Your task to perform on an android device: Open the calendar and show me this week's events? Image 0: 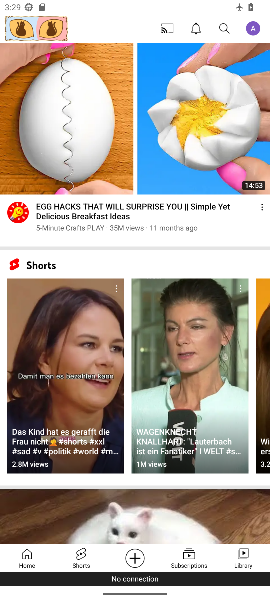
Step 0: press home button
Your task to perform on an android device: Open the calendar and show me this week's events? Image 1: 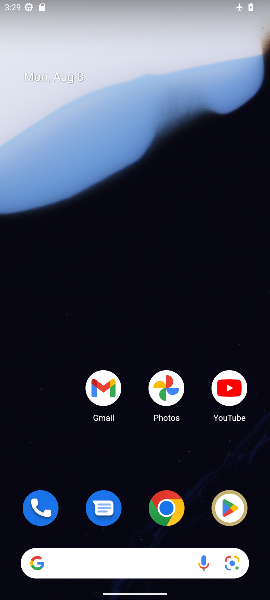
Step 1: drag from (140, 472) to (95, 19)
Your task to perform on an android device: Open the calendar and show me this week's events? Image 2: 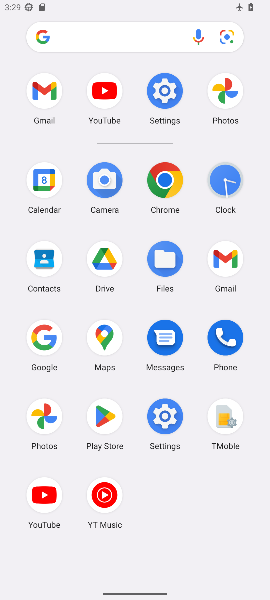
Step 2: click (47, 181)
Your task to perform on an android device: Open the calendar and show me this week's events? Image 3: 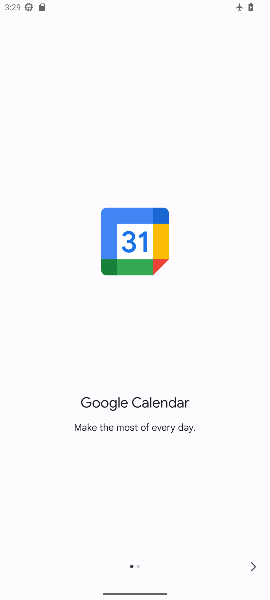
Step 3: click (251, 567)
Your task to perform on an android device: Open the calendar and show me this week's events? Image 4: 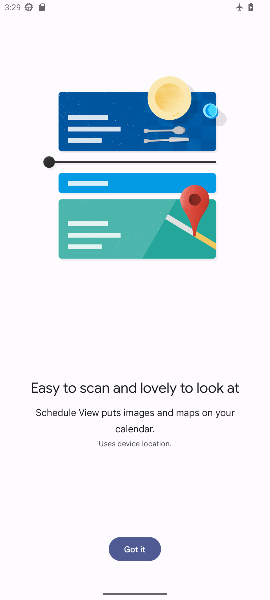
Step 4: click (129, 551)
Your task to perform on an android device: Open the calendar and show me this week's events? Image 5: 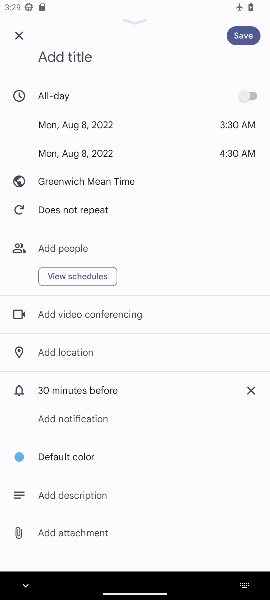
Step 5: click (18, 35)
Your task to perform on an android device: Open the calendar and show me this week's events? Image 6: 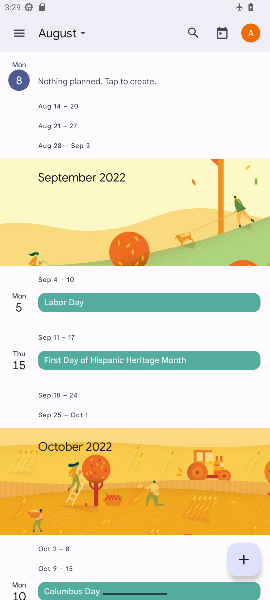
Step 6: click (22, 31)
Your task to perform on an android device: Open the calendar and show me this week's events? Image 7: 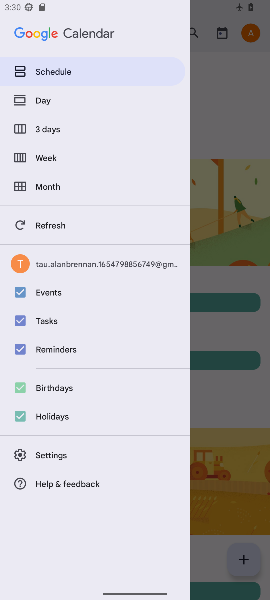
Step 7: click (44, 159)
Your task to perform on an android device: Open the calendar and show me this week's events? Image 8: 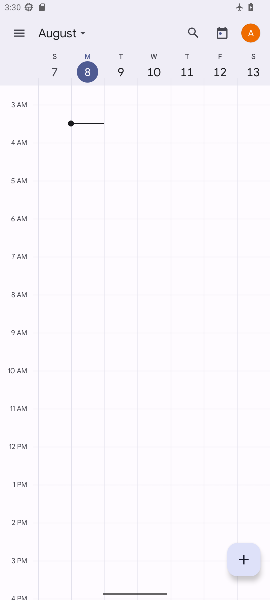
Step 8: task complete